Your task to perform on an android device: Go to notification settings Image 0: 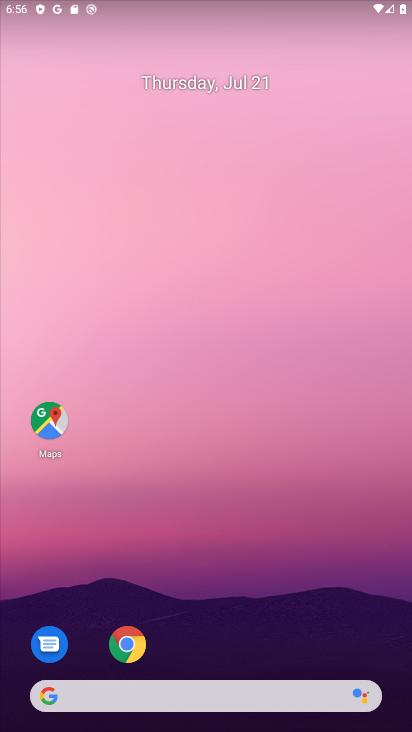
Step 0: drag from (245, 405) to (245, 152)
Your task to perform on an android device: Go to notification settings Image 1: 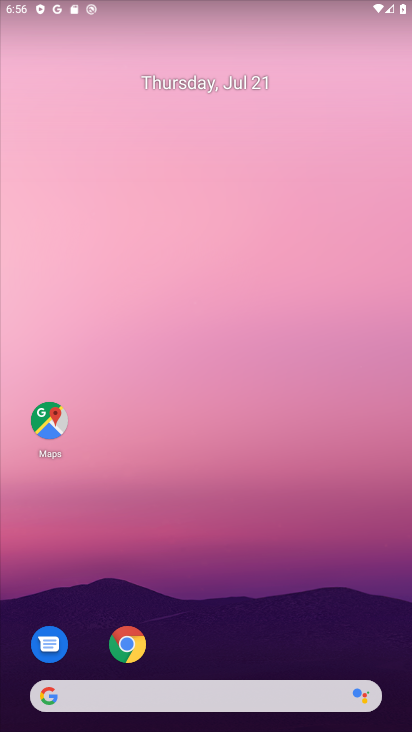
Step 1: drag from (282, 560) to (308, 74)
Your task to perform on an android device: Go to notification settings Image 2: 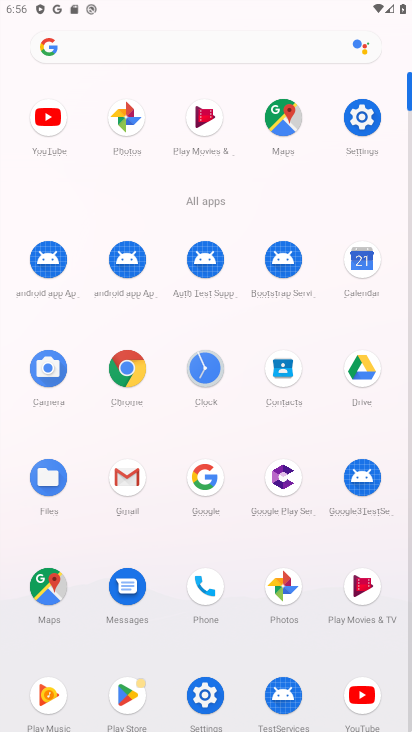
Step 2: click (365, 123)
Your task to perform on an android device: Go to notification settings Image 3: 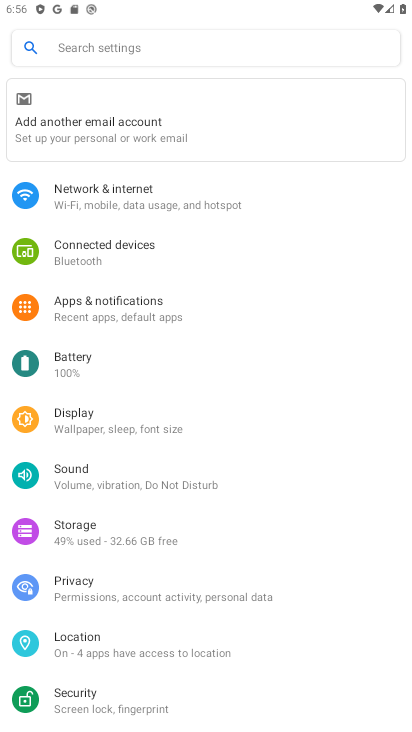
Step 3: click (96, 300)
Your task to perform on an android device: Go to notification settings Image 4: 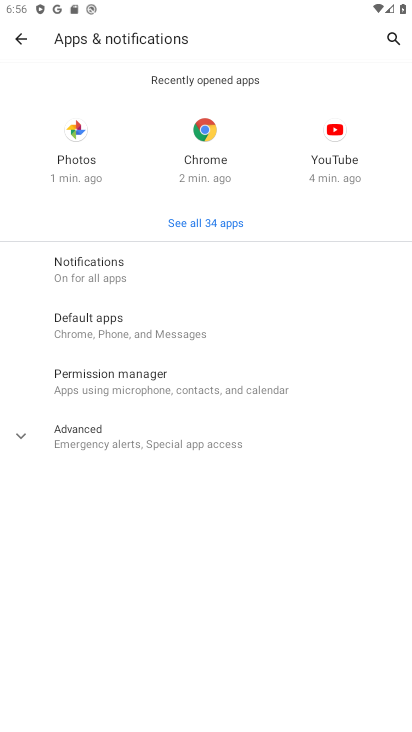
Step 4: task complete